Your task to perform on an android device: turn off priority inbox in the gmail app Image 0: 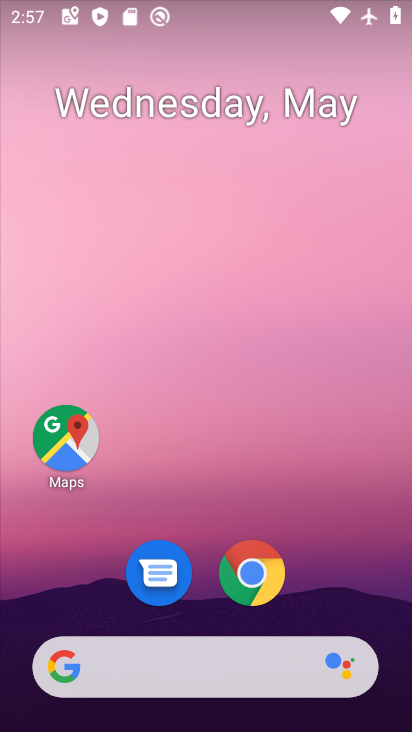
Step 0: drag from (321, 609) to (337, 46)
Your task to perform on an android device: turn off priority inbox in the gmail app Image 1: 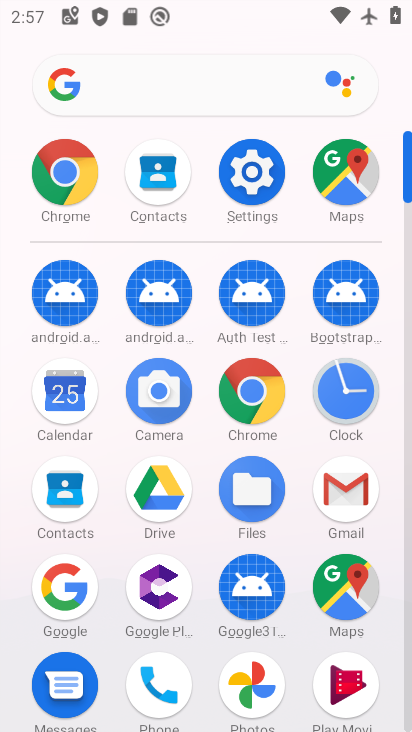
Step 1: click (343, 498)
Your task to perform on an android device: turn off priority inbox in the gmail app Image 2: 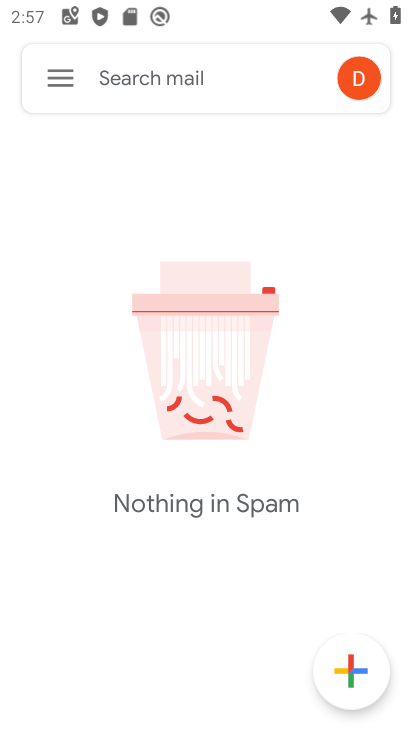
Step 2: click (59, 79)
Your task to perform on an android device: turn off priority inbox in the gmail app Image 3: 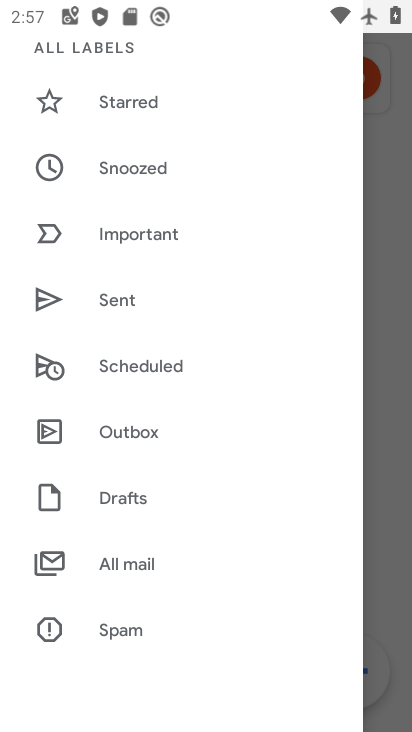
Step 3: drag from (119, 656) to (180, 332)
Your task to perform on an android device: turn off priority inbox in the gmail app Image 4: 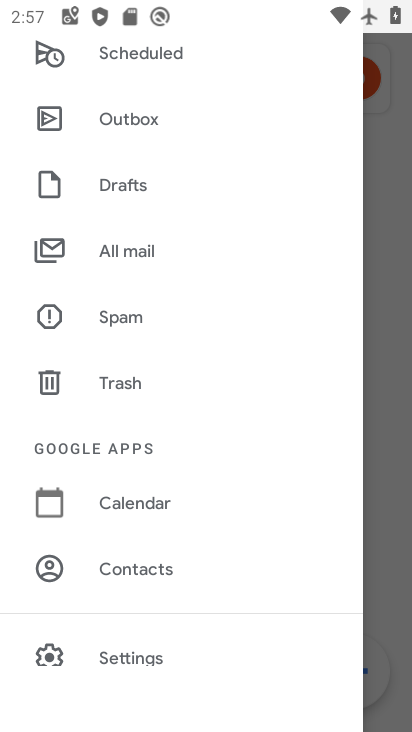
Step 4: click (145, 660)
Your task to perform on an android device: turn off priority inbox in the gmail app Image 5: 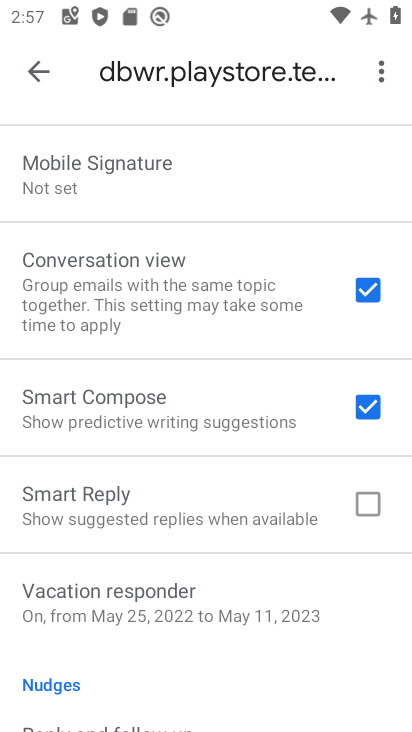
Step 5: drag from (152, 679) to (166, 729)
Your task to perform on an android device: turn off priority inbox in the gmail app Image 6: 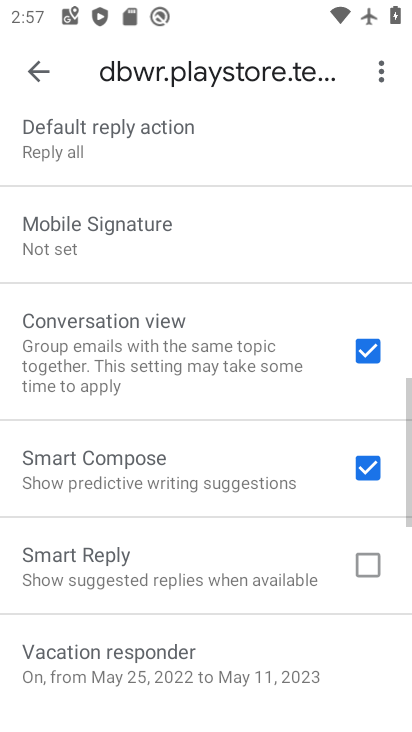
Step 6: drag from (159, 382) to (241, 710)
Your task to perform on an android device: turn off priority inbox in the gmail app Image 7: 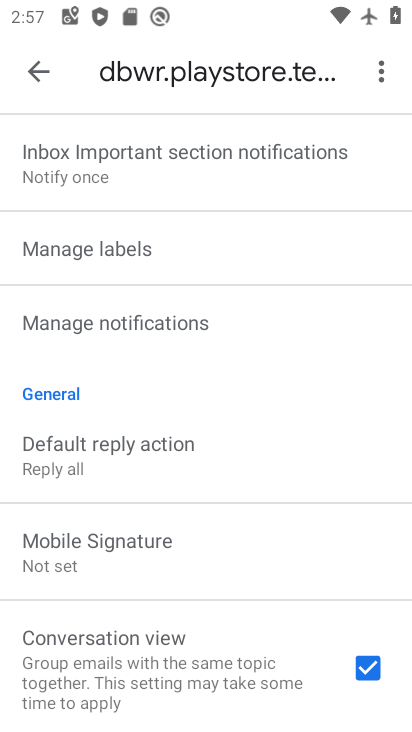
Step 7: drag from (230, 424) to (289, 665)
Your task to perform on an android device: turn off priority inbox in the gmail app Image 8: 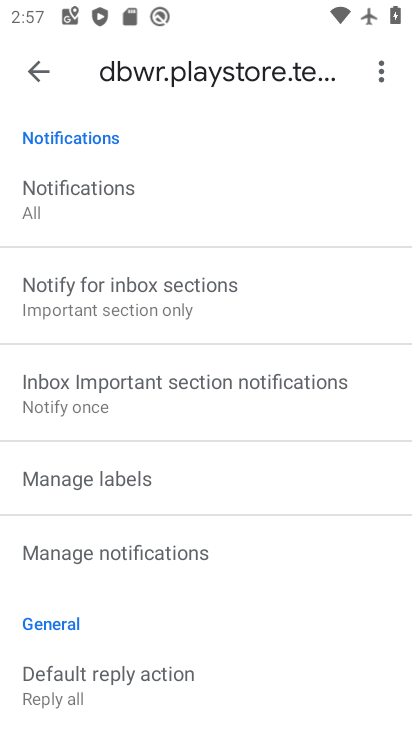
Step 8: drag from (223, 245) to (339, 563)
Your task to perform on an android device: turn off priority inbox in the gmail app Image 9: 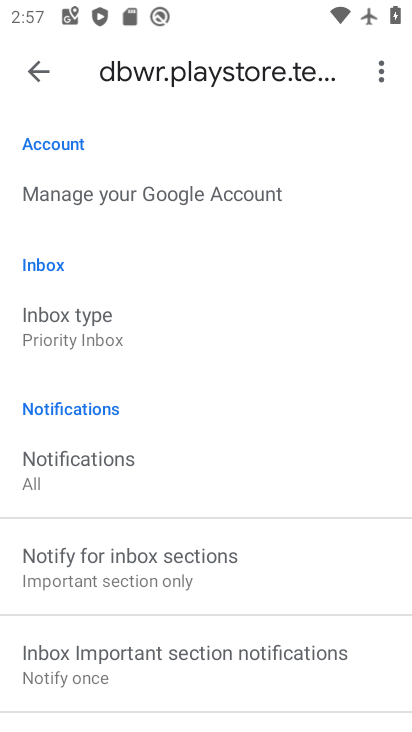
Step 9: click (104, 336)
Your task to perform on an android device: turn off priority inbox in the gmail app Image 10: 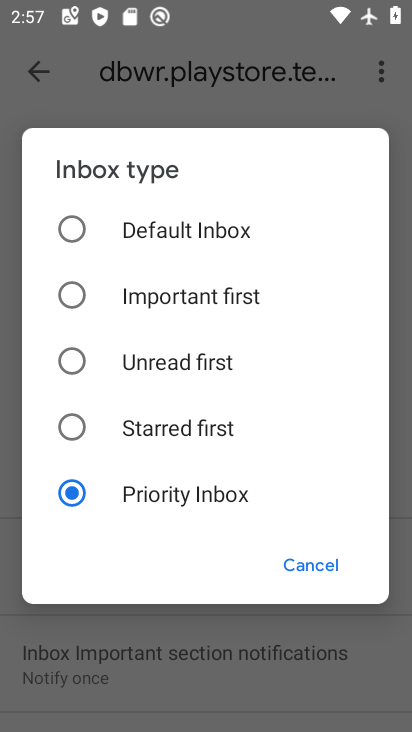
Step 10: click (217, 232)
Your task to perform on an android device: turn off priority inbox in the gmail app Image 11: 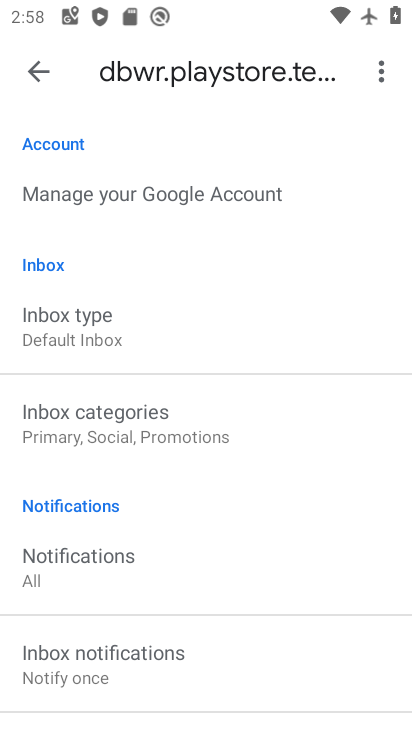
Step 11: task complete